Your task to perform on an android device: Open display settings Image 0: 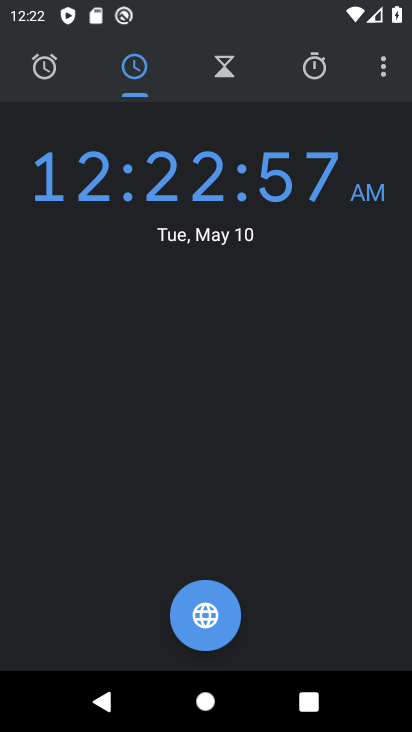
Step 0: press home button
Your task to perform on an android device: Open display settings Image 1: 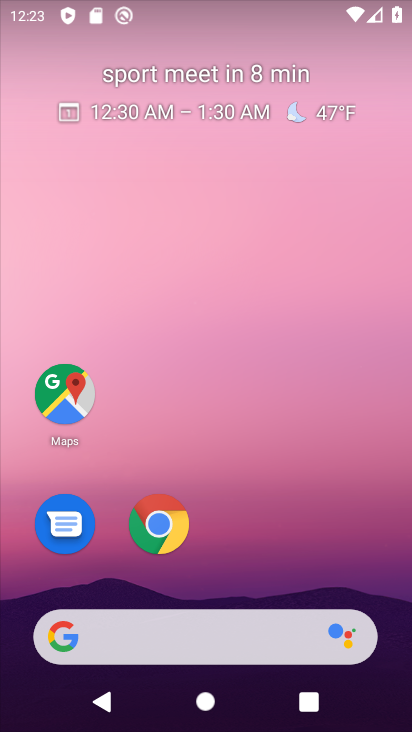
Step 1: drag from (224, 507) to (259, 10)
Your task to perform on an android device: Open display settings Image 2: 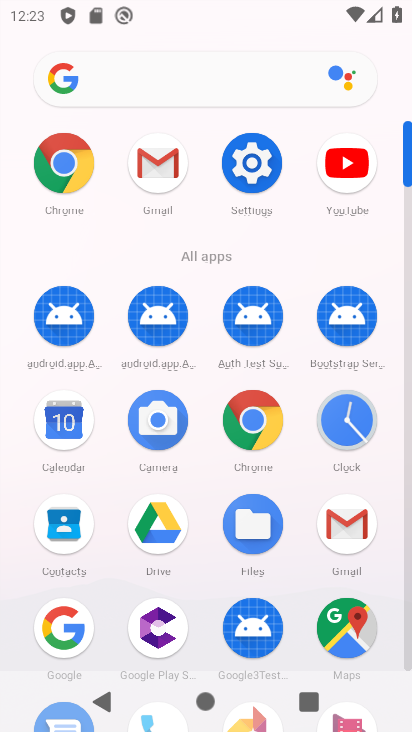
Step 2: click (244, 167)
Your task to perform on an android device: Open display settings Image 3: 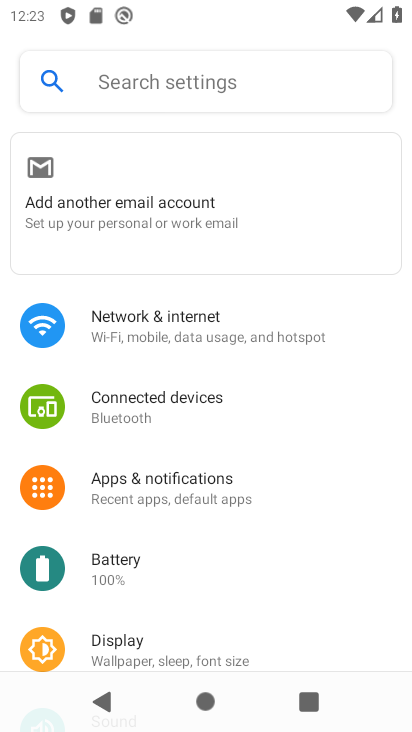
Step 3: click (192, 642)
Your task to perform on an android device: Open display settings Image 4: 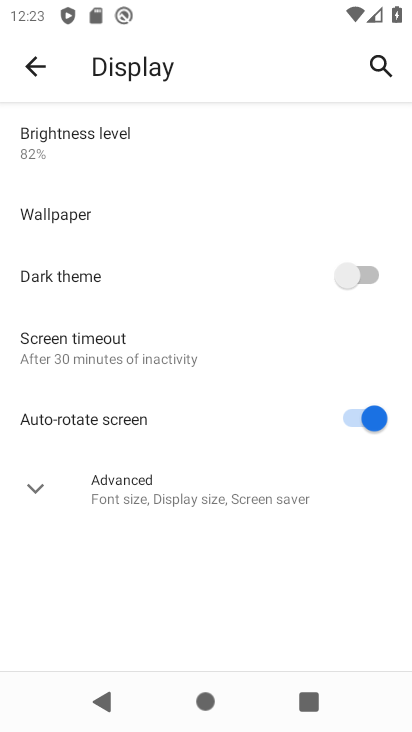
Step 4: task complete